Your task to perform on an android device: Open battery settings Image 0: 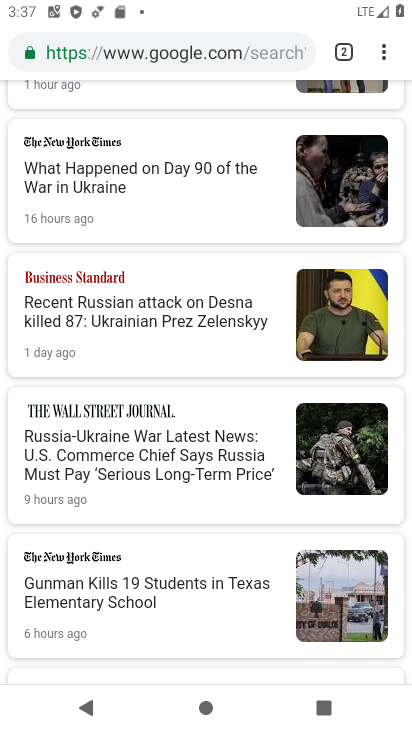
Step 0: press home button
Your task to perform on an android device: Open battery settings Image 1: 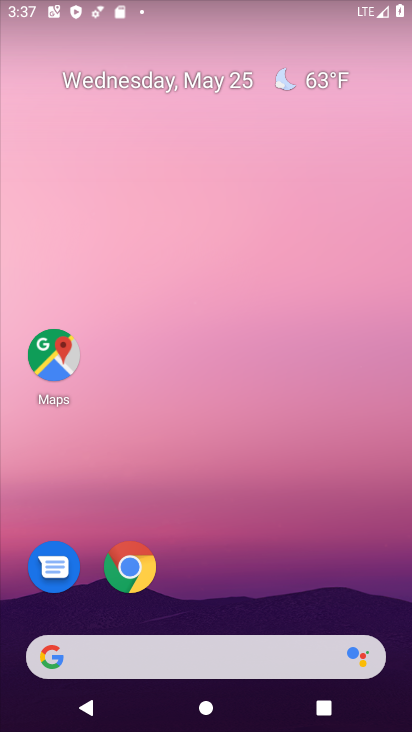
Step 1: drag from (195, 602) to (261, 78)
Your task to perform on an android device: Open battery settings Image 2: 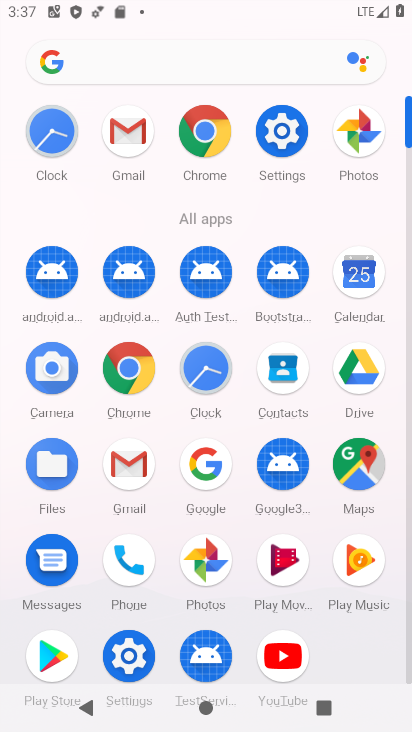
Step 2: click (286, 124)
Your task to perform on an android device: Open battery settings Image 3: 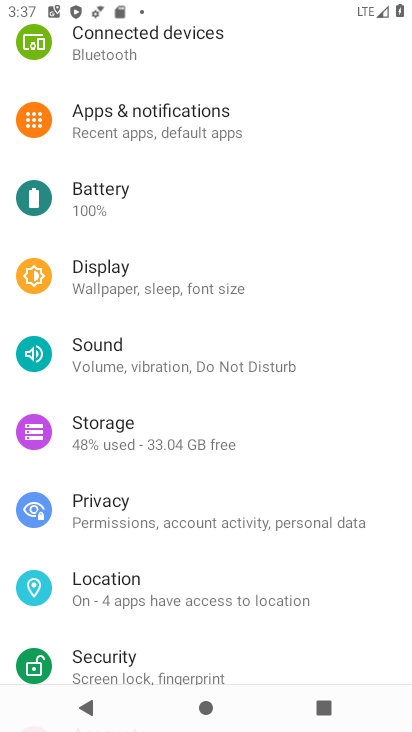
Step 3: click (120, 199)
Your task to perform on an android device: Open battery settings Image 4: 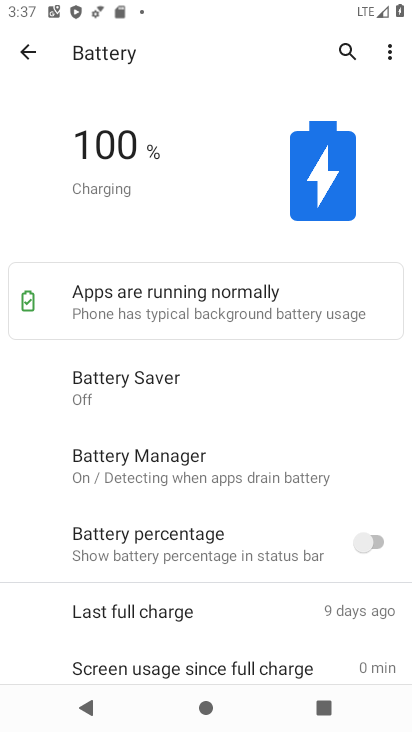
Step 4: task complete